Your task to perform on an android device: snooze an email in the gmail app Image 0: 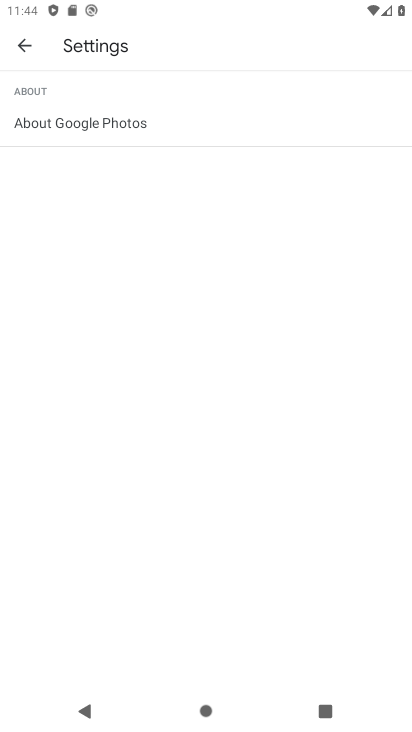
Step 0: press home button
Your task to perform on an android device: snooze an email in the gmail app Image 1: 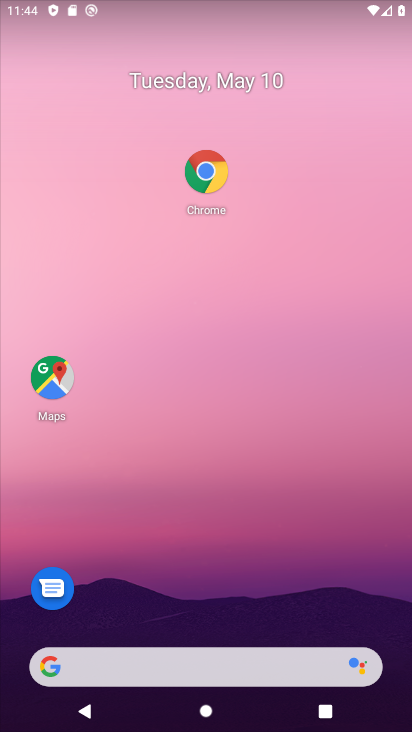
Step 1: drag from (313, 503) to (313, 258)
Your task to perform on an android device: snooze an email in the gmail app Image 2: 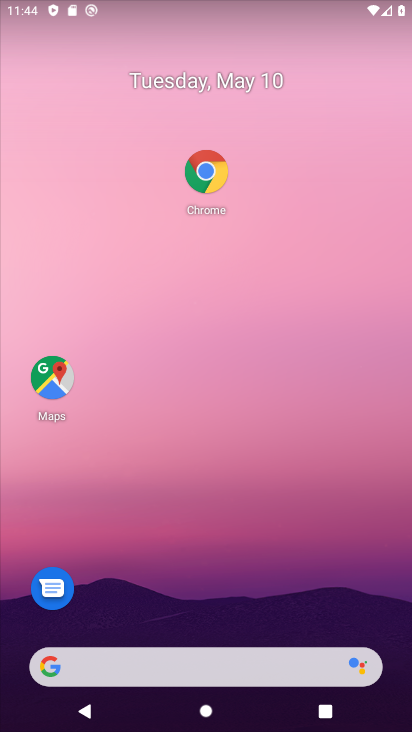
Step 2: drag from (294, 557) to (255, 229)
Your task to perform on an android device: snooze an email in the gmail app Image 3: 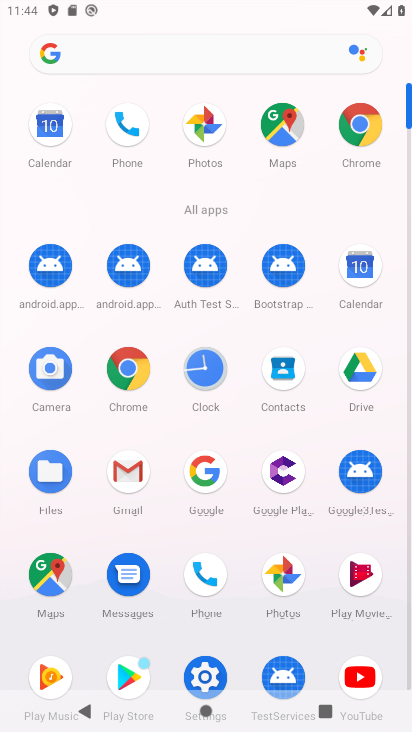
Step 3: click (123, 474)
Your task to perform on an android device: snooze an email in the gmail app Image 4: 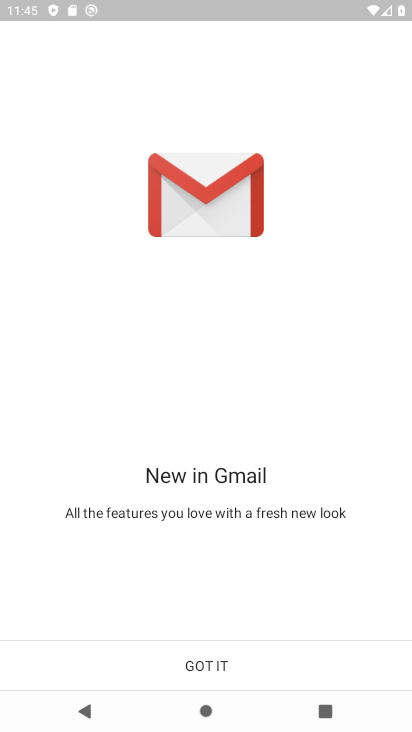
Step 4: click (228, 664)
Your task to perform on an android device: snooze an email in the gmail app Image 5: 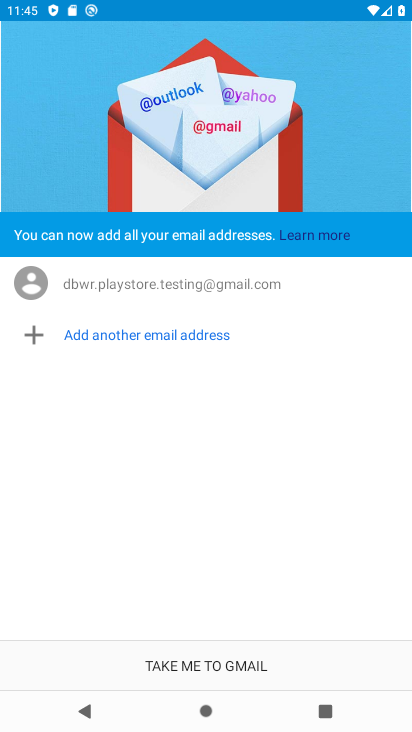
Step 5: click (209, 665)
Your task to perform on an android device: snooze an email in the gmail app Image 6: 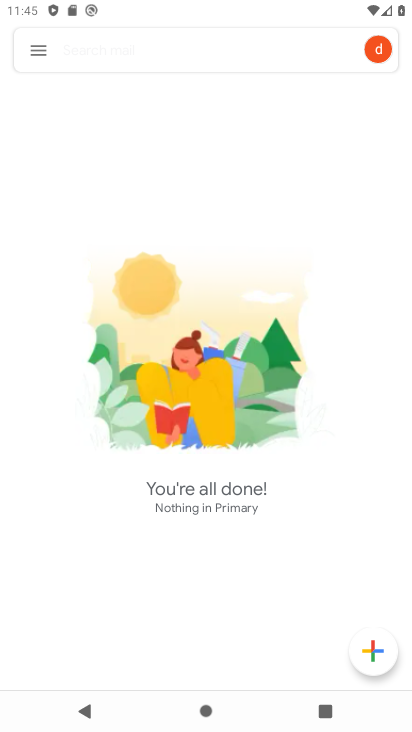
Step 6: click (40, 46)
Your task to perform on an android device: snooze an email in the gmail app Image 7: 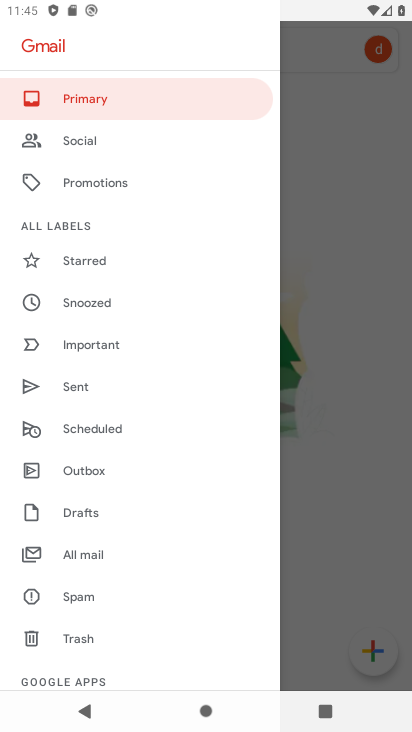
Step 7: click (96, 296)
Your task to perform on an android device: snooze an email in the gmail app Image 8: 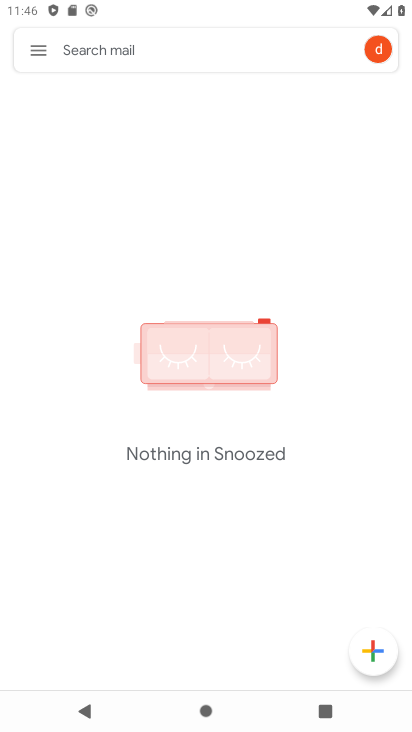
Step 8: task complete